Your task to perform on an android device: change your default location settings in chrome Image 0: 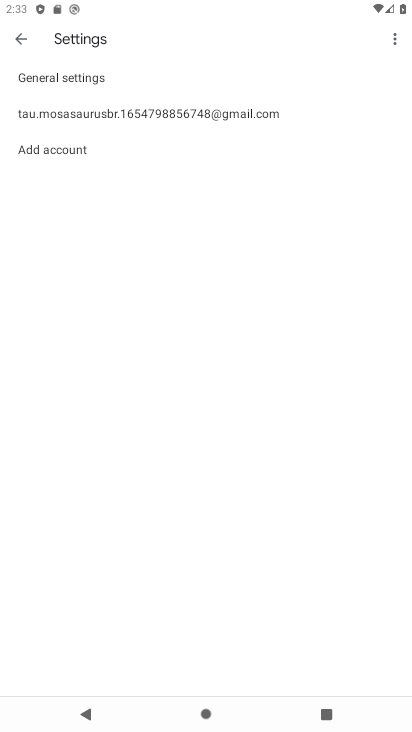
Step 0: press home button
Your task to perform on an android device: change your default location settings in chrome Image 1: 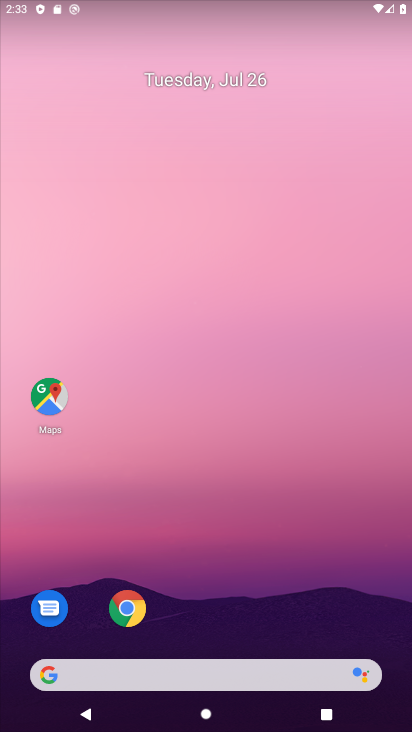
Step 1: click (127, 609)
Your task to perform on an android device: change your default location settings in chrome Image 2: 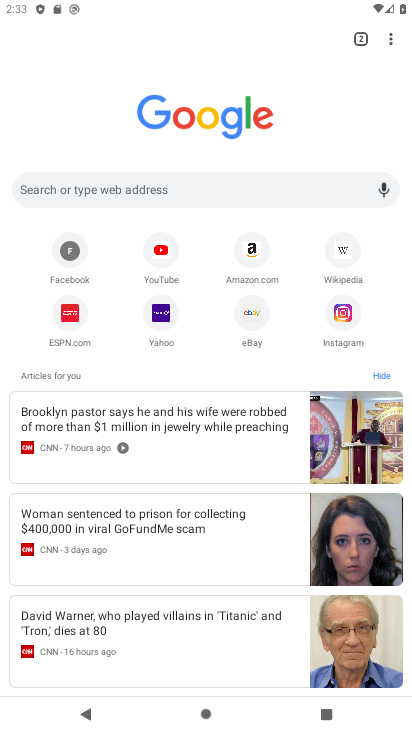
Step 2: click (385, 42)
Your task to perform on an android device: change your default location settings in chrome Image 3: 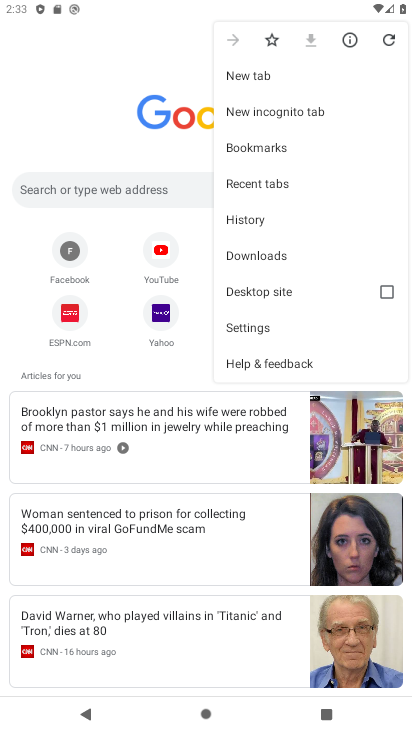
Step 3: click (254, 325)
Your task to perform on an android device: change your default location settings in chrome Image 4: 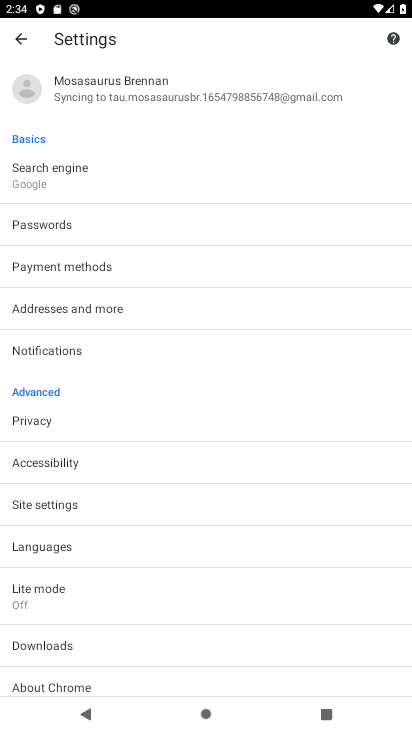
Step 4: task complete